Your task to perform on an android device: How much does a 3 bedroom apartment rent for in New York? Image 0: 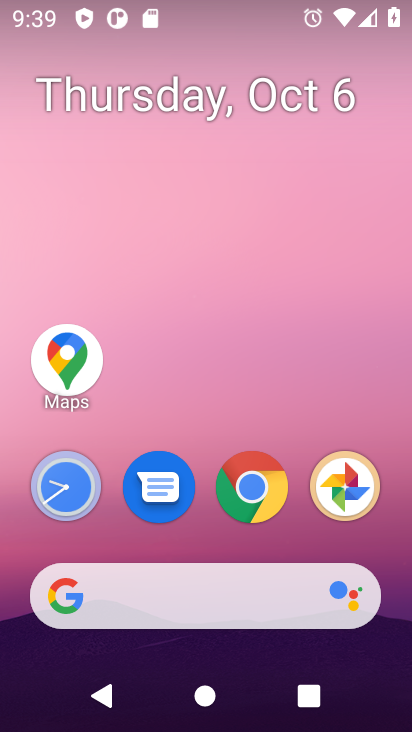
Step 0: drag from (221, 523) to (292, 126)
Your task to perform on an android device: How much does a 3 bedroom apartment rent for in New York? Image 1: 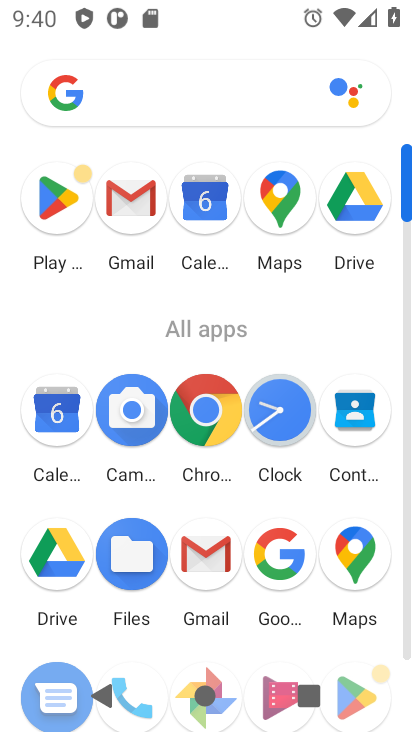
Step 1: click (194, 418)
Your task to perform on an android device: How much does a 3 bedroom apartment rent for in New York? Image 2: 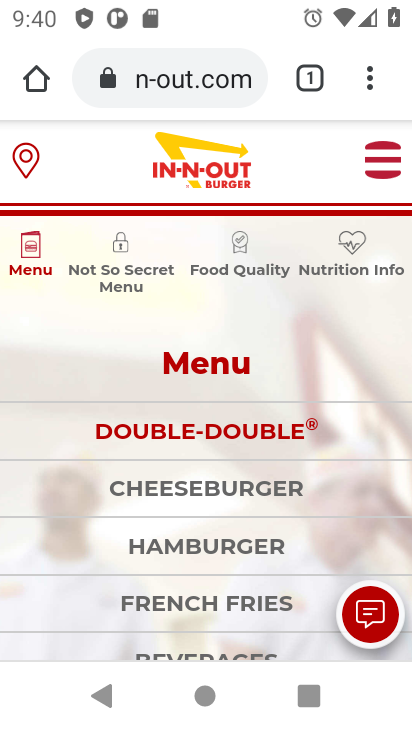
Step 2: click (198, 73)
Your task to perform on an android device: How much does a 3 bedroom apartment rent for in New York? Image 3: 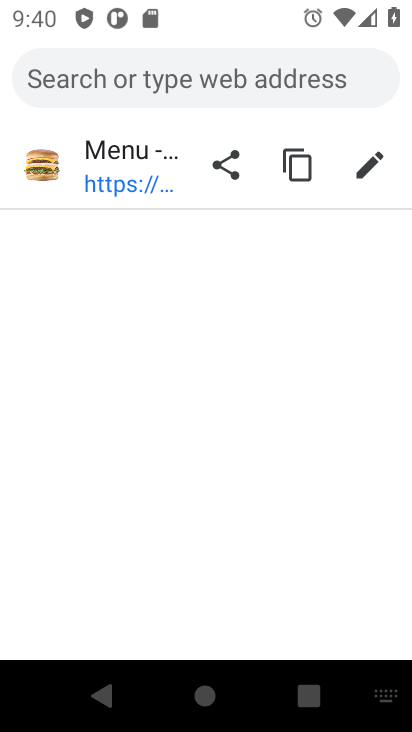
Step 3: type "How much does a 3 bedroom apartment rent for in New York?"
Your task to perform on an android device: How much does a 3 bedroom apartment rent for in New York? Image 4: 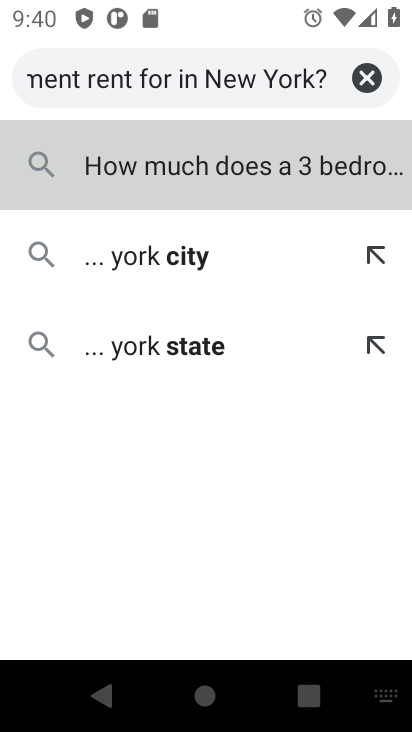
Step 4: press enter
Your task to perform on an android device: How much does a 3 bedroom apartment rent for in New York? Image 5: 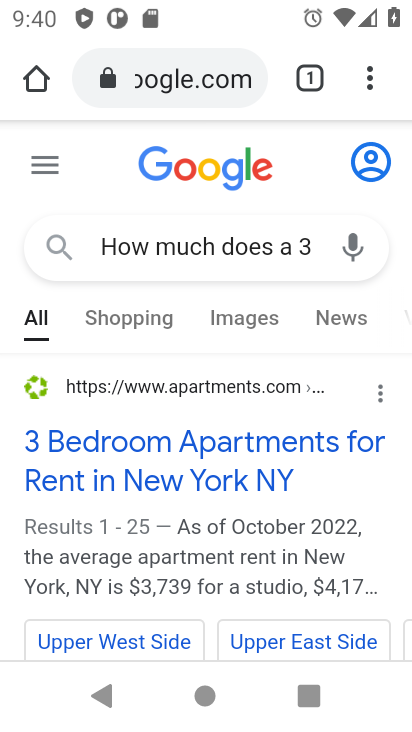
Step 5: click (177, 446)
Your task to perform on an android device: How much does a 3 bedroom apartment rent for in New York? Image 6: 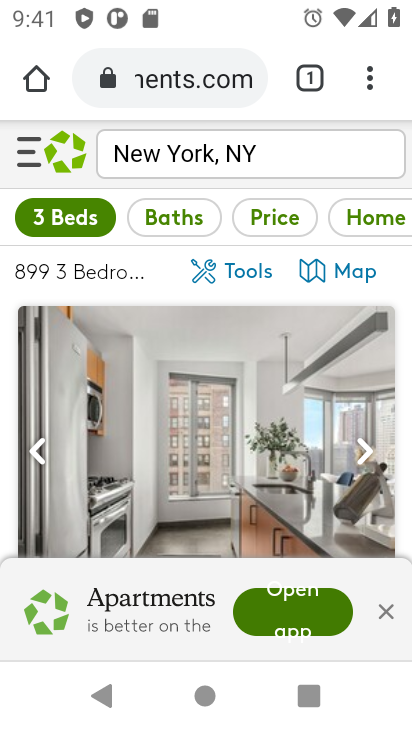
Step 6: task complete